Your task to perform on an android device: open app "Viber Messenger" (install if not already installed) and enter user name: "blameless@icloud.com" and password: "Yoknapatawpha" Image 0: 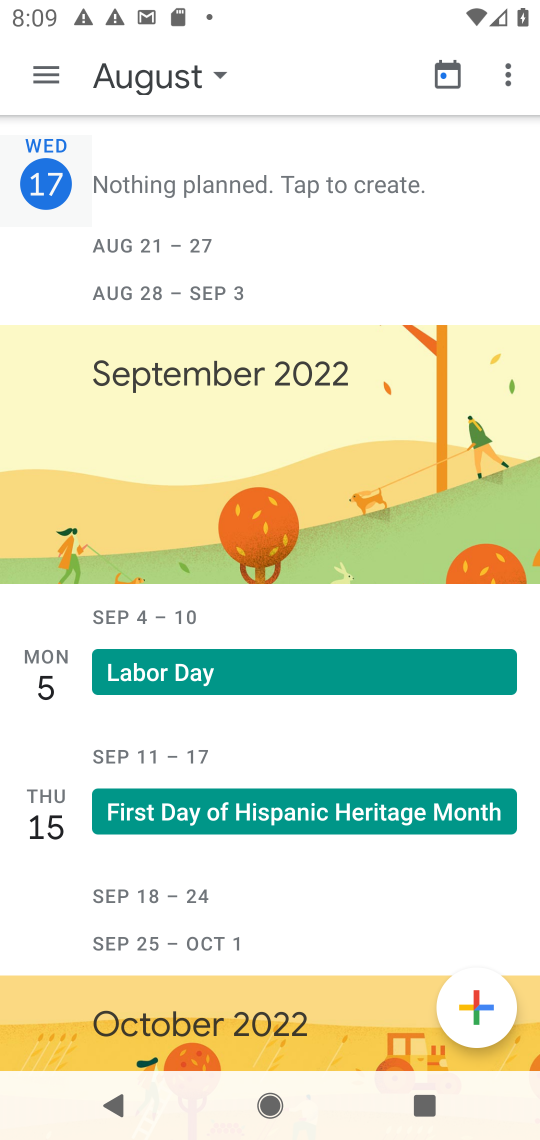
Step 0: press home button
Your task to perform on an android device: open app "Viber Messenger" (install if not already installed) and enter user name: "blameless@icloud.com" and password: "Yoknapatawpha" Image 1: 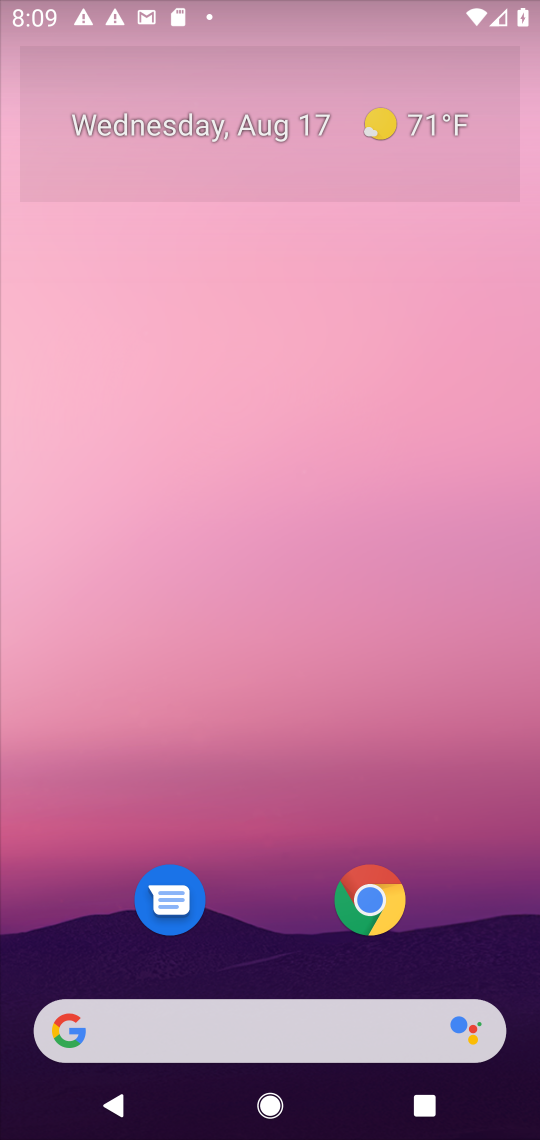
Step 1: drag from (227, 818) to (138, 17)
Your task to perform on an android device: open app "Viber Messenger" (install if not already installed) and enter user name: "blameless@icloud.com" and password: "Yoknapatawpha" Image 2: 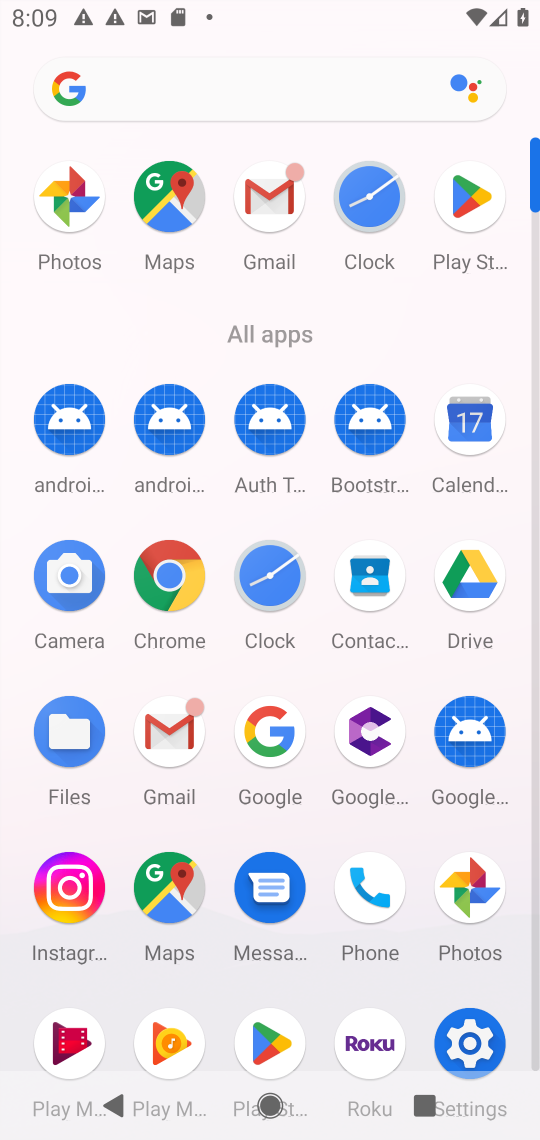
Step 2: click (471, 201)
Your task to perform on an android device: open app "Viber Messenger" (install if not already installed) and enter user name: "blameless@icloud.com" and password: "Yoknapatawpha" Image 3: 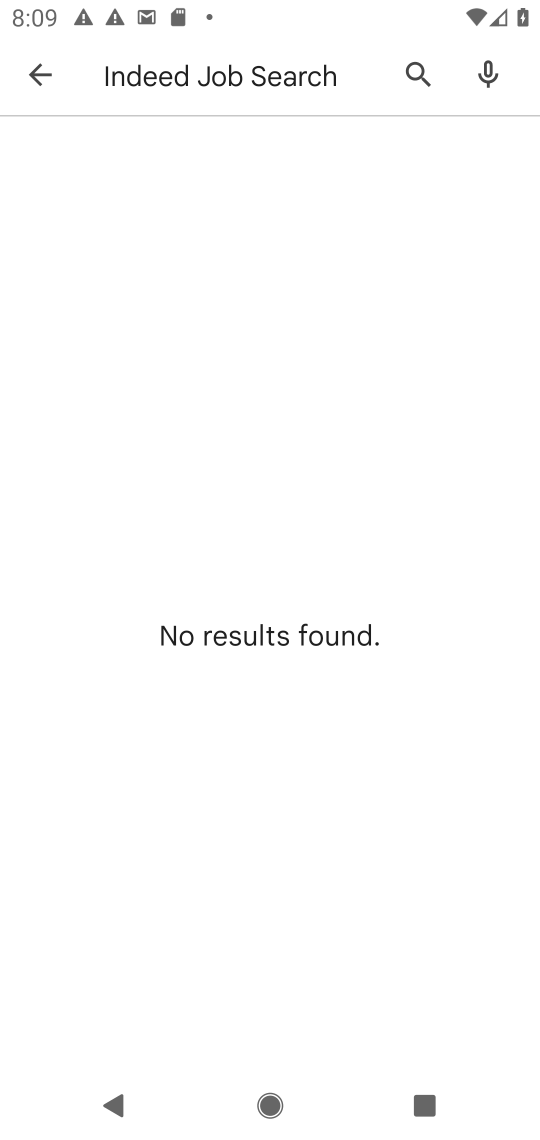
Step 3: click (32, 64)
Your task to perform on an android device: open app "Viber Messenger" (install if not already installed) and enter user name: "blameless@icloud.com" and password: "Yoknapatawpha" Image 4: 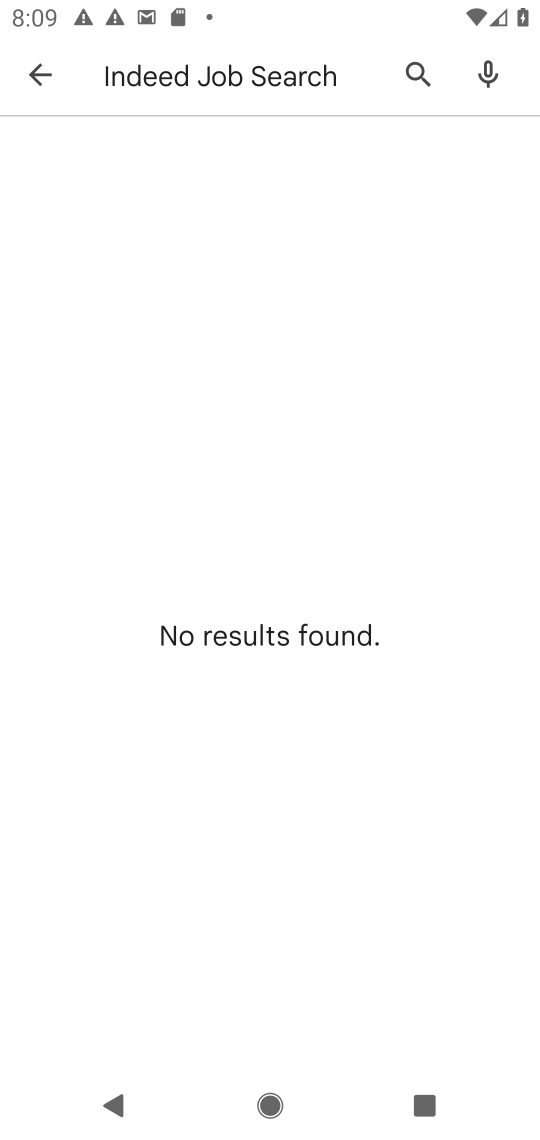
Step 4: click (31, 72)
Your task to perform on an android device: open app "Viber Messenger" (install if not already installed) and enter user name: "blameless@icloud.com" and password: "Yoknapatawpha" Image 5: 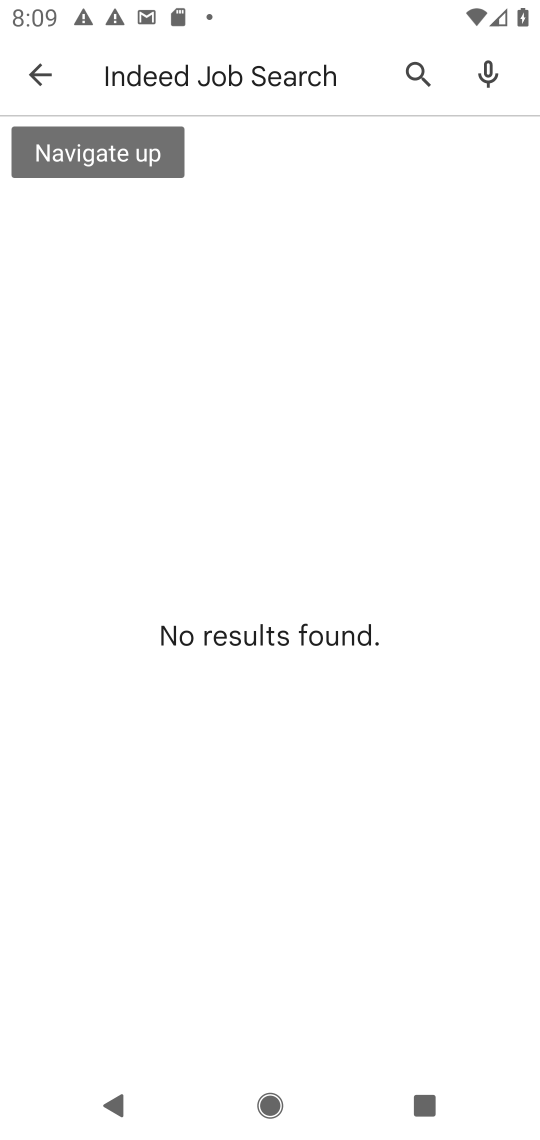
Step 5: click (30, 74)
Your task to perform on an android device: open app "Viber Messenger" (install if not already installed) and enter user name: "blameless@icloud.com" and password: "Yoknapatawpha" Image 6: 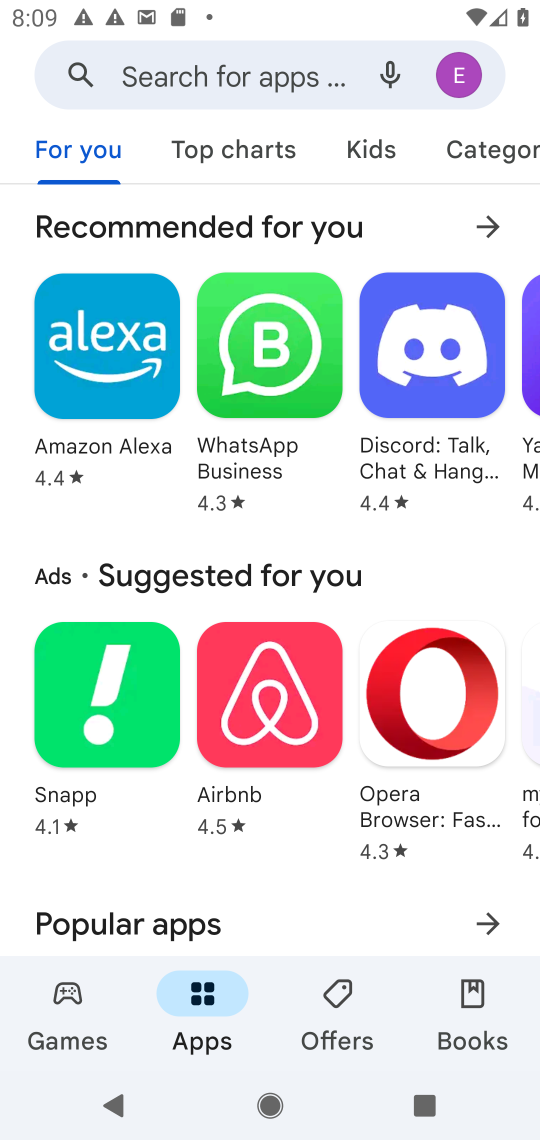
Step 6: click (298, 93)
Your task to perform on an android device: open app "Viber Messenger" (install if not already installed) and enter user name: "blameless@icloud.com" and password: "Yoknapatawpha" Image 7: 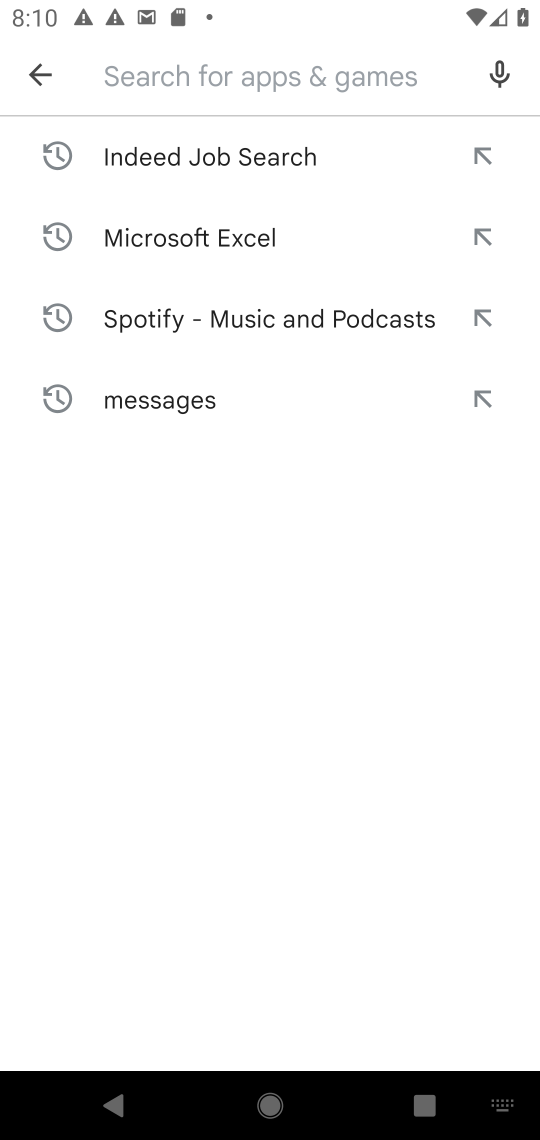
Step 7: type "Viber Messenger"
Your task to perform on an android device: open app "Viber Messenger" (install if not already installed) and enter user name: "blameless@icloud.com" and password: "Yoknapatawpha" Image 8: 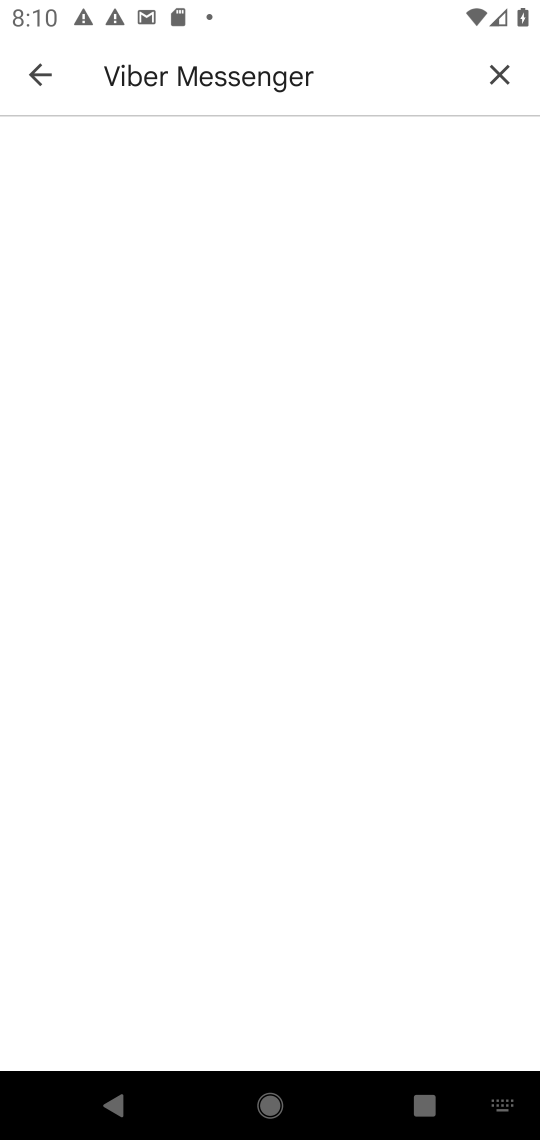
Step 8: press enter
Your task to perform on an android device: open app "Viber Messenger" (install if not already installed) and enter user name: "blameless@icloud.com" and password: "Yoknapatawpha" Image 9: 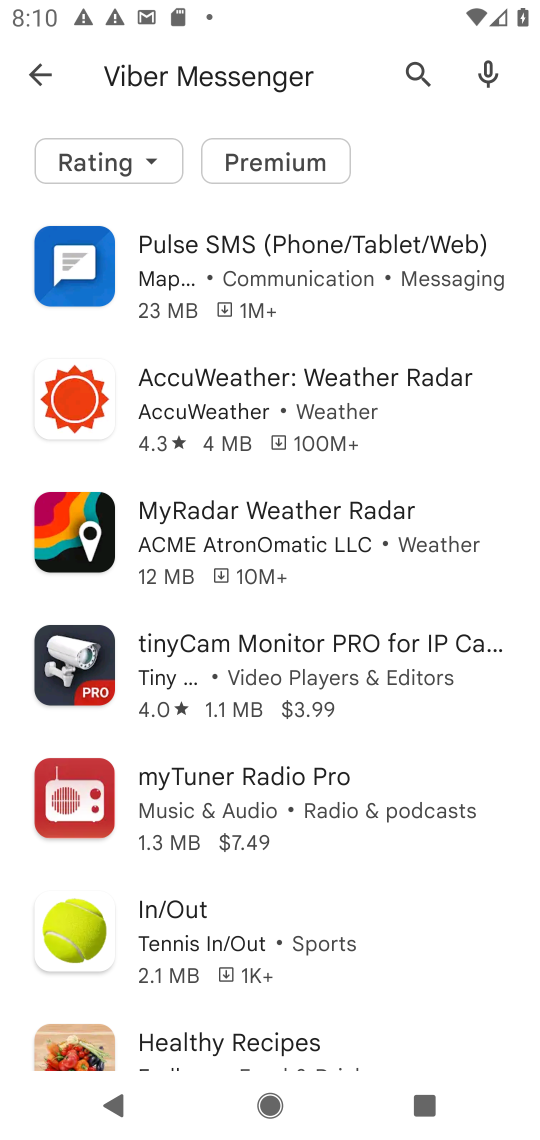
Step 9: task complete